Your task to perform on an android device: Turn on the flashlight Image 0: 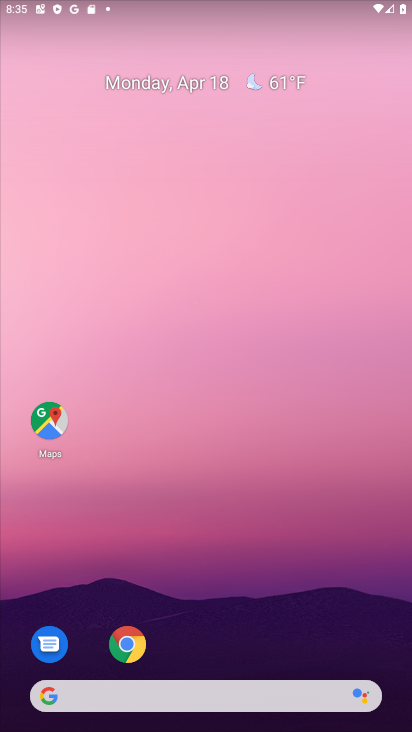
Step 0: drag from (180, 69) to (239, 460)
Your task to perform on an android device: Turn on the flashlight Image 1: 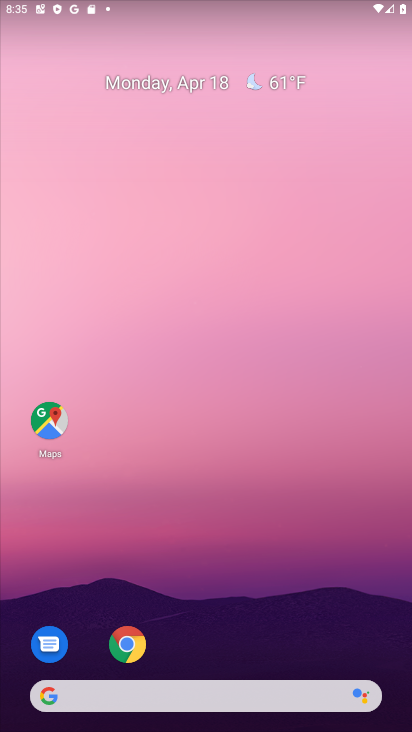
Step 1: drag from (196, 69) to (241, 418)
Your task to perform on an android device: Turn on the flashlight Image 2: 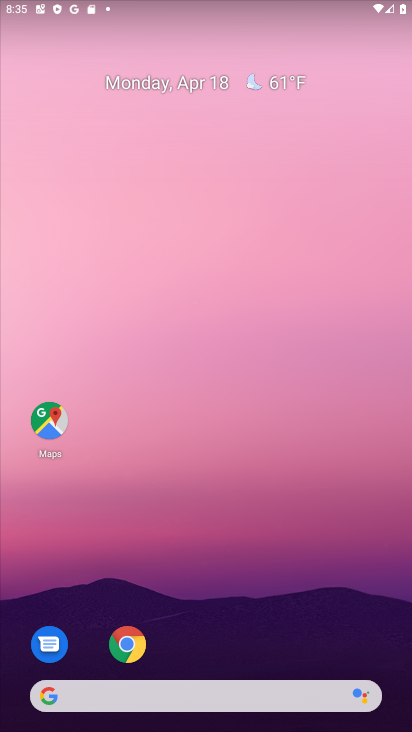
Step 2: drag from (168, 6) to (193, 422)
Your task to perform on an android device: Turn on the flashlight Image 3: 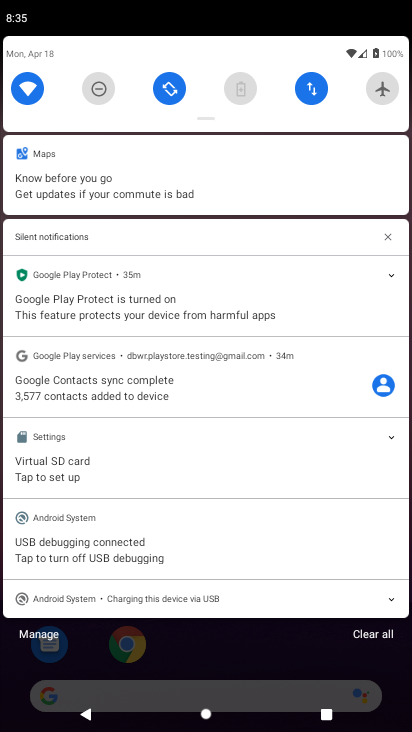
Step 3: drag from (202, 119) to (210, 472)
Your task to perform on an android device: Turn on the flashlight Image 4: 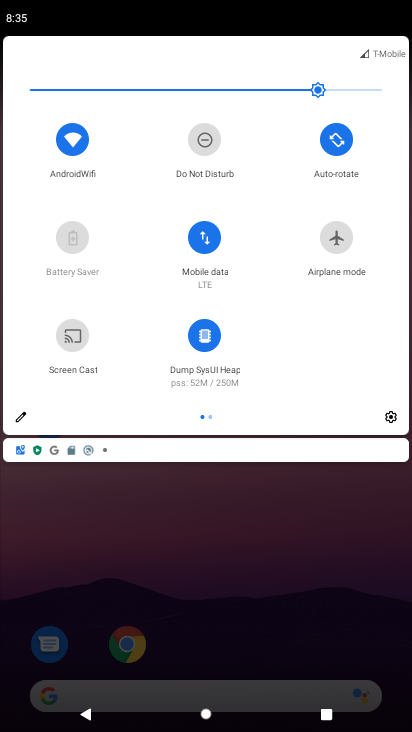
Step 4: click (29, 418)
Your task to perform on an android device: Turn on the flashlight Image 5: 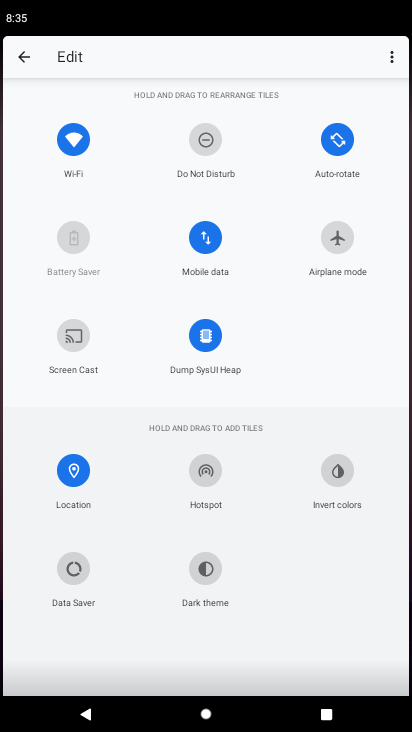
Step 5: task complete